Your task to perform on an android device: Check the news Image 0: 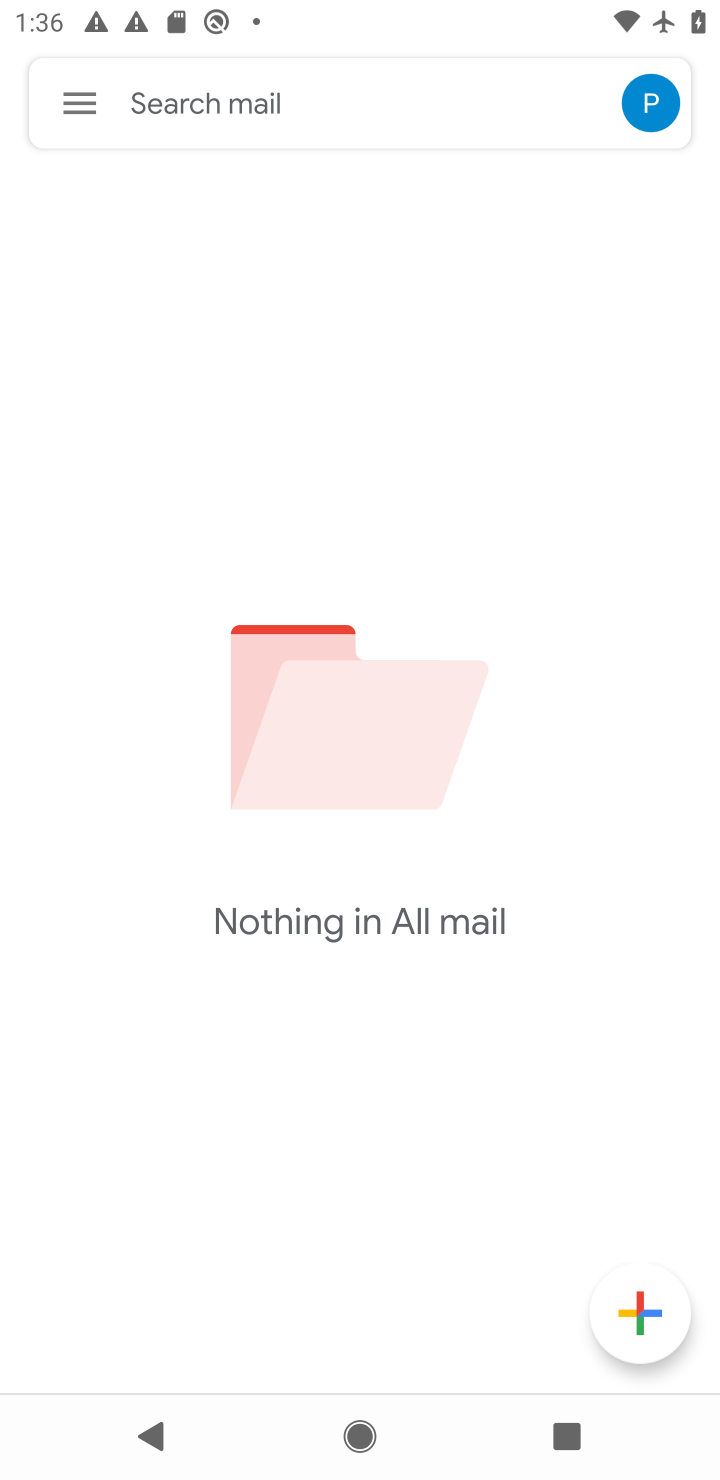
Step 0: press home button
Your task to perform on an android device: Check the news Image 1: 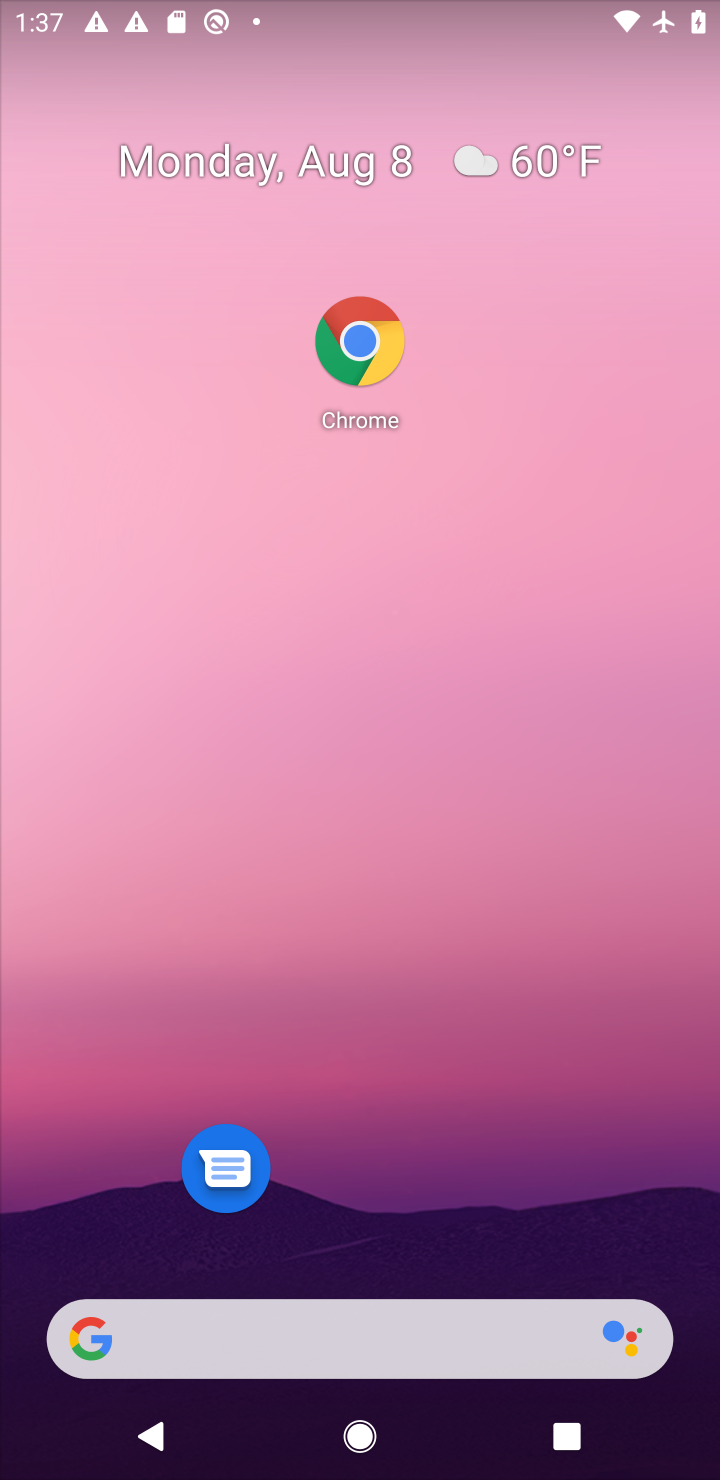
Step 1: click (349, 355)
Your task to perform on an android device: Check the news Image 2: 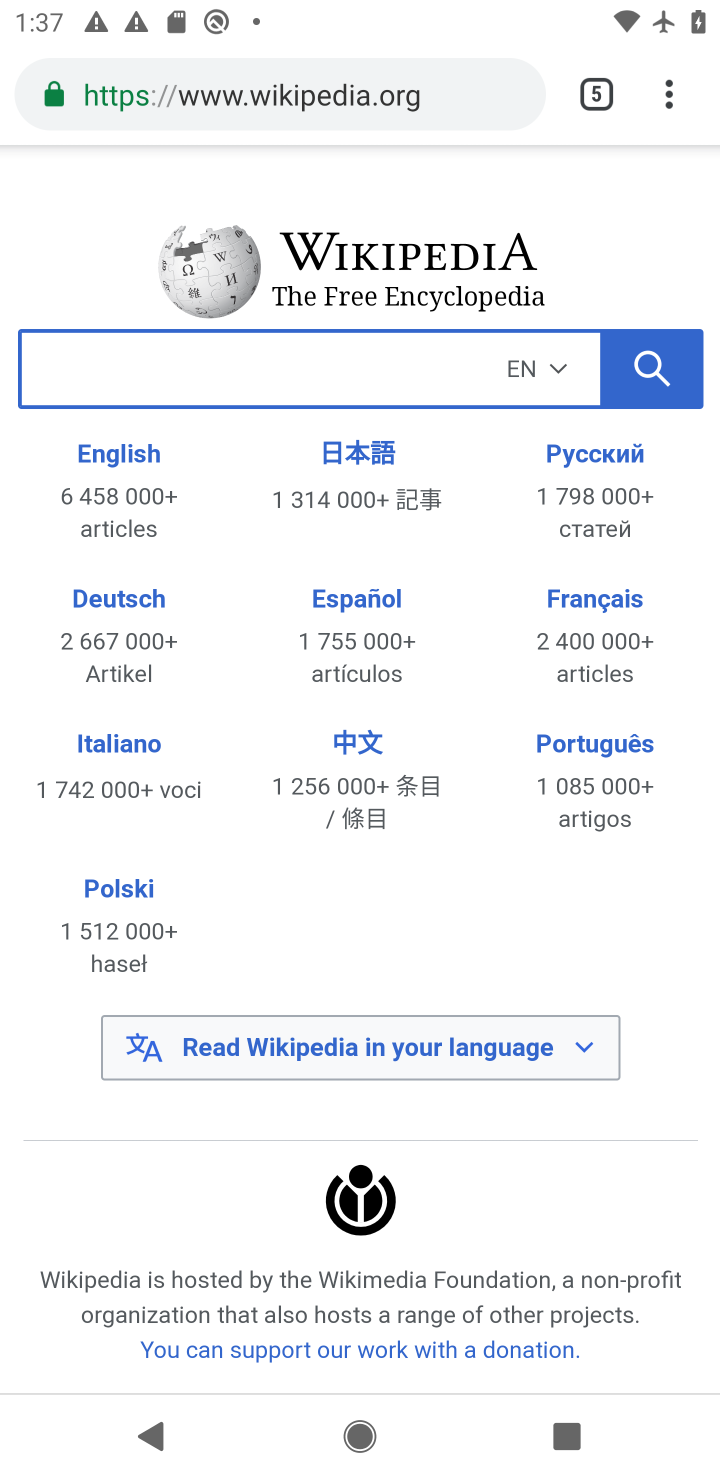
Step 2: click (398, 74)
Your task to perform on an android device: Check the news Image 3: 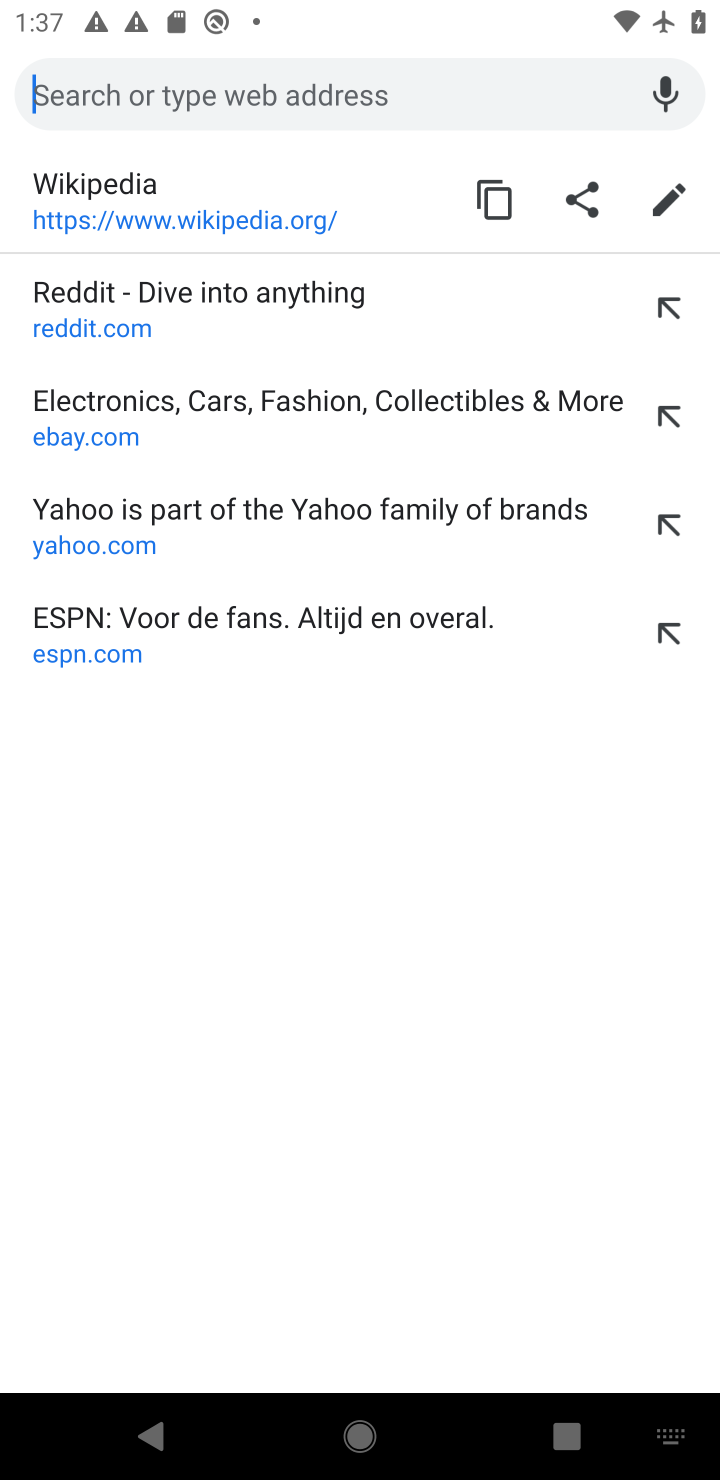
Step 3: type "news"
Your task to perform on an android device: Check the news Image 4: 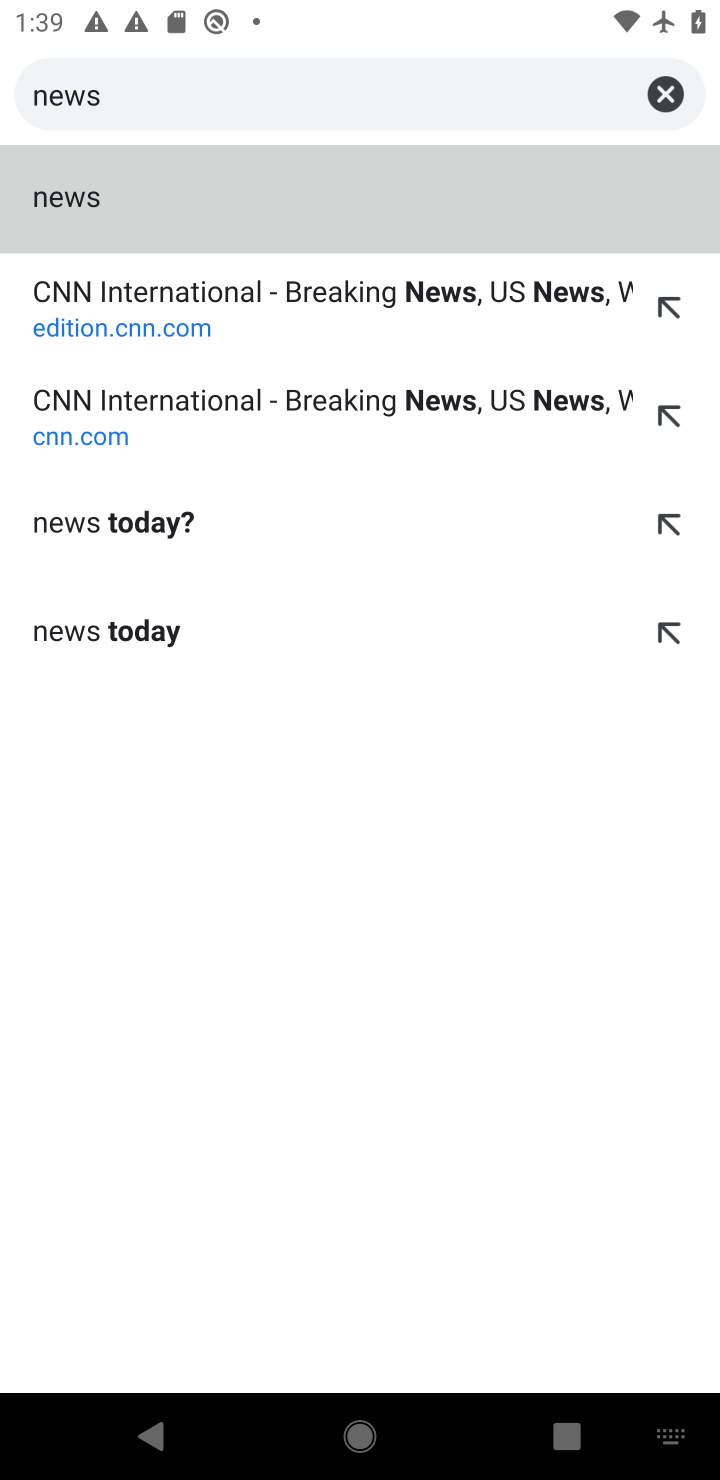
Step 4: click (508, 191)
Your task to perform on an android device: Check the news Image 5: 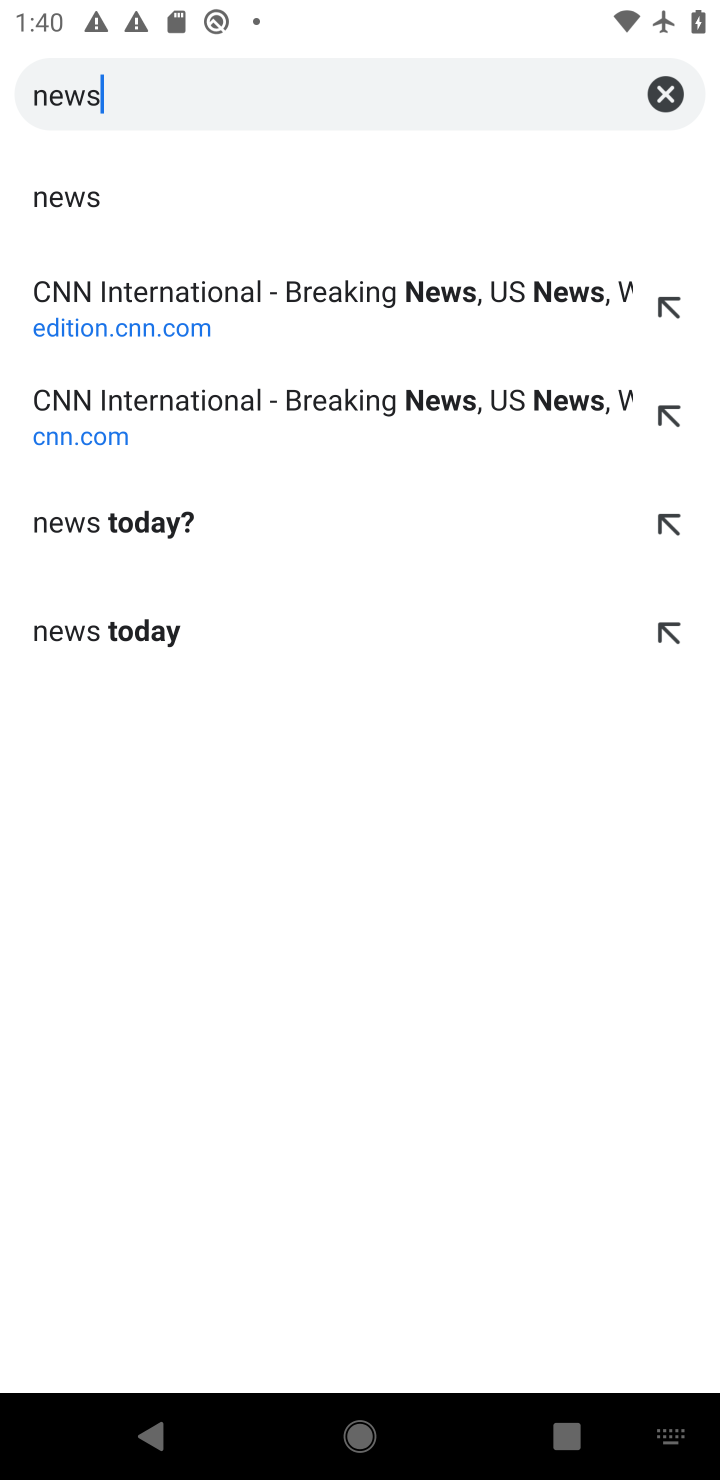
Step 5: task complete